Your task to perform on an android device: Open Amazon Image 0: 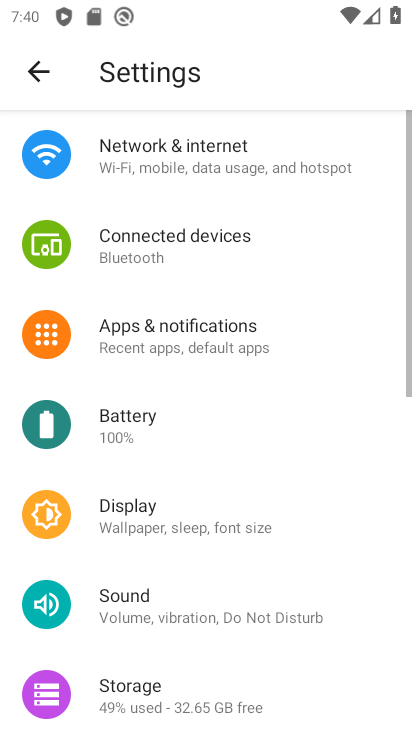
Step 0: press home button
Your task to perform on an android device: Open Amazon Image 1: 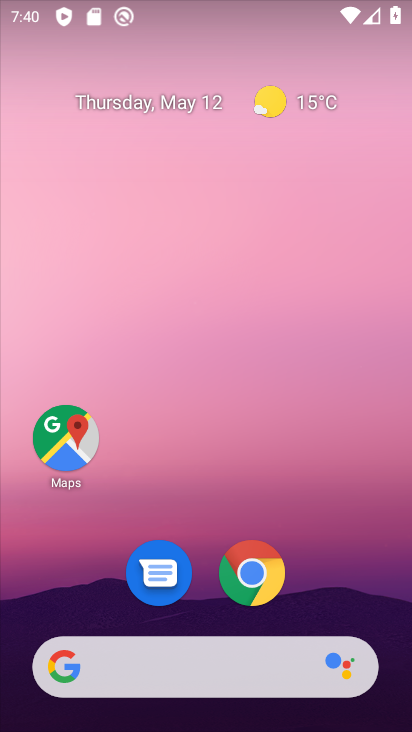
Step 1: click (254, 578)
Your task to perform on an android device: Open Amazon Image 2: 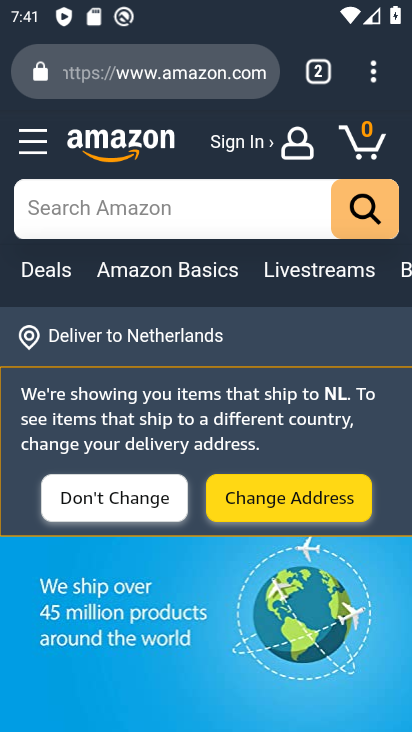
Step 2: task complete